Your task to perform on an android device: turn notification dots off Image 0: 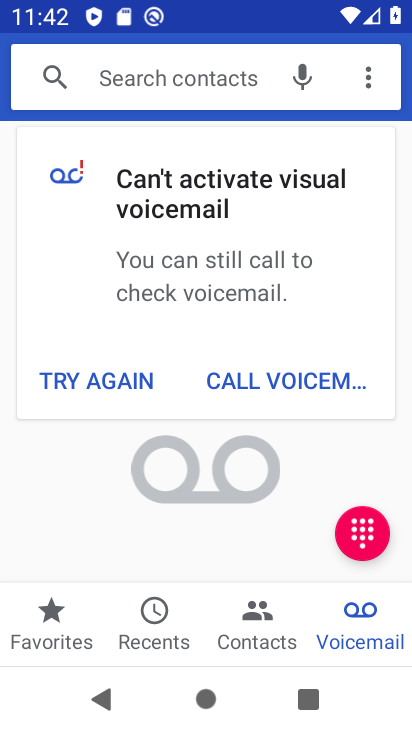
Step 0: press home button
Your task to perform on an android device: turn notification dots off Image 1: 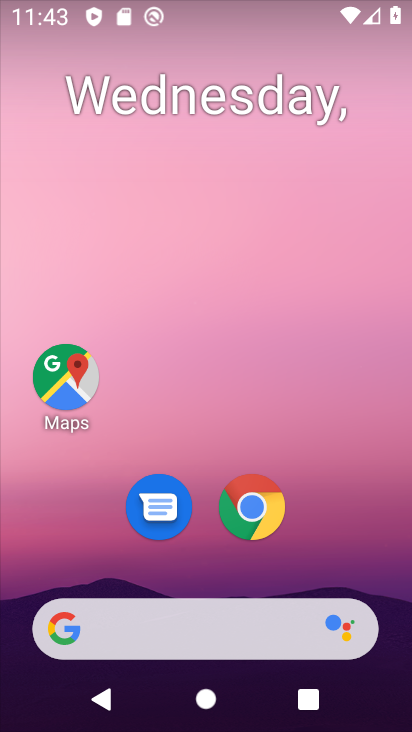
Step 1: drag from (196, 566) to (139, 242)
Your task to perform on an android device: turn notification dots off Image 2: 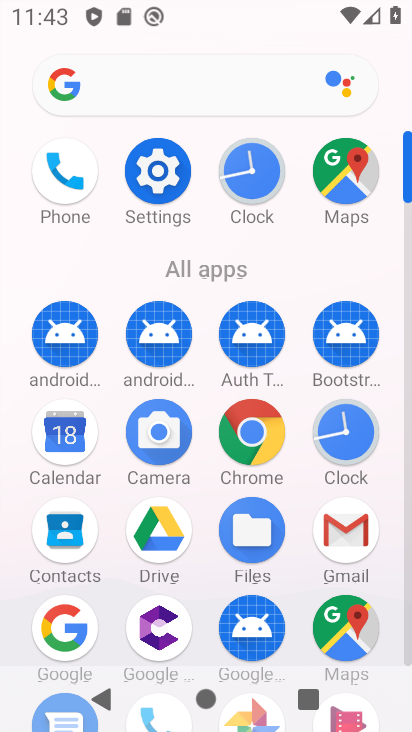
Step 2: click (146, 170)
Your task to perform on an android device: turn notification dots off Image 3: 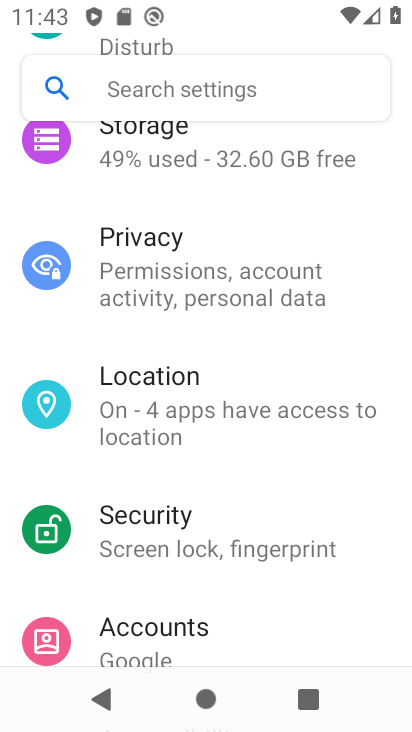
Step 3: drag from (208, 588) to (80, 187)
Your task to perform on an android device: turn notification dots off Image 4: 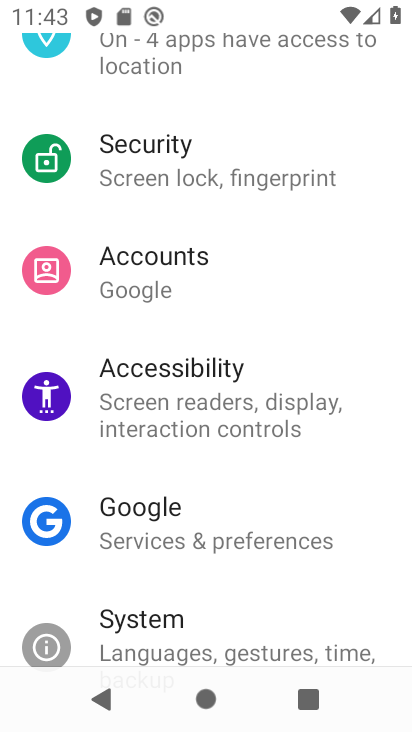
Step 4: drag from (172, 228) to (279, 731)
Your task to perform on an android device: turn notification dots off Image 5: 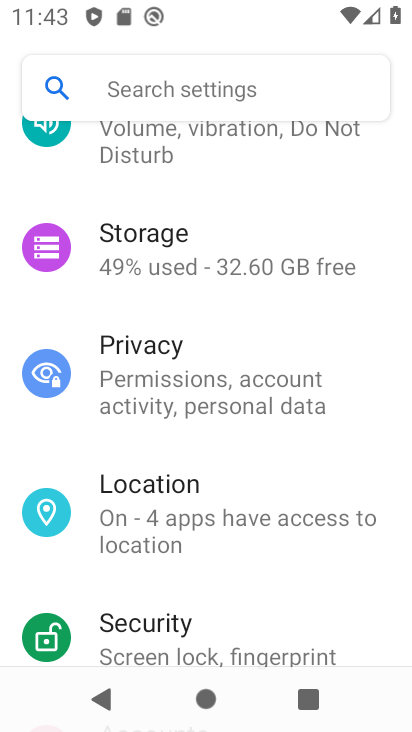
Step 5: drag from (139, 317) to (259, 729)
Your task to perform on an android device: turn notification dots off Image 6: 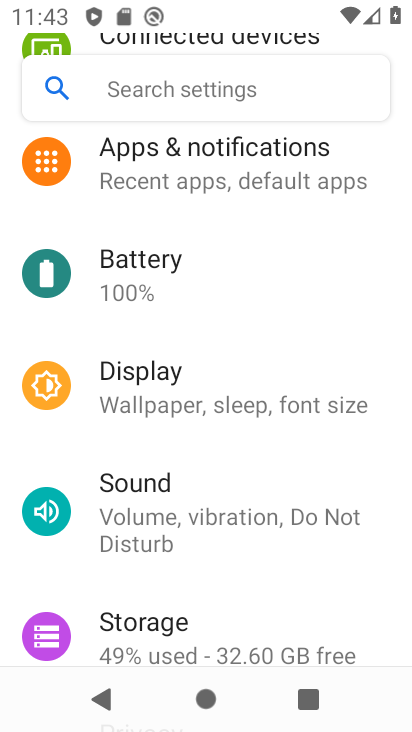
Step 6: click (156, 178)
Your task to perform on an android device: turn notification dots off Image 7: 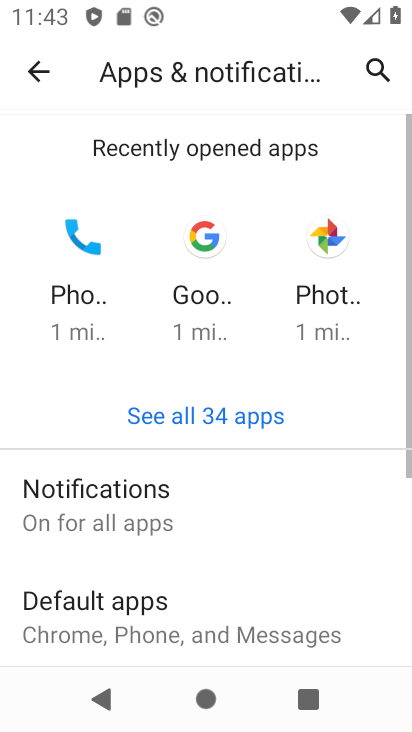
Step 7: drag from (225, 619) to (180, 459)
Your task to perform on an android device: turn notification dots off Image 8: 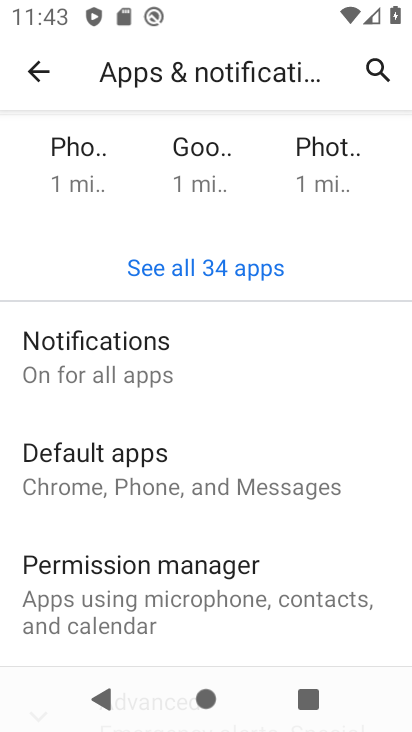
Step 8: click (73, 378)
Your task to perform on an android device: turn notification dots off Image 9: 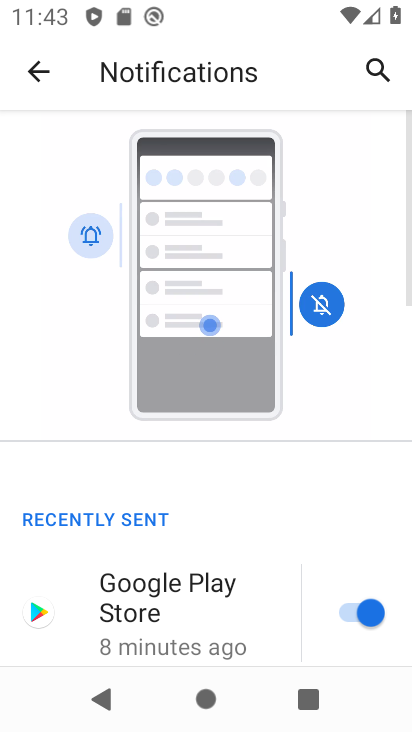
Step 9: drag from (191, 620) to (113, 238)
Your task to perform on an android device: turn notification dots off Image 10: 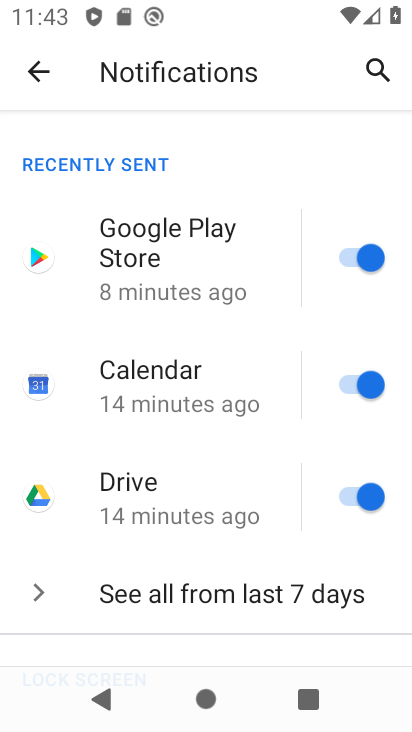
Step 10: drag from (79, 203) to (30, 103)
Your task to perform on an android device: turn notification dots off Image 11: 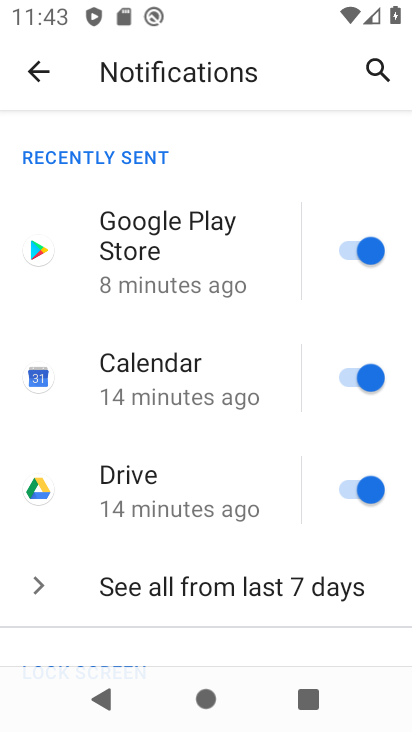
Step 11: drag from (131, 564) to (143, 104)
Your task to perform on an android device: turn notification dots off Image 12: 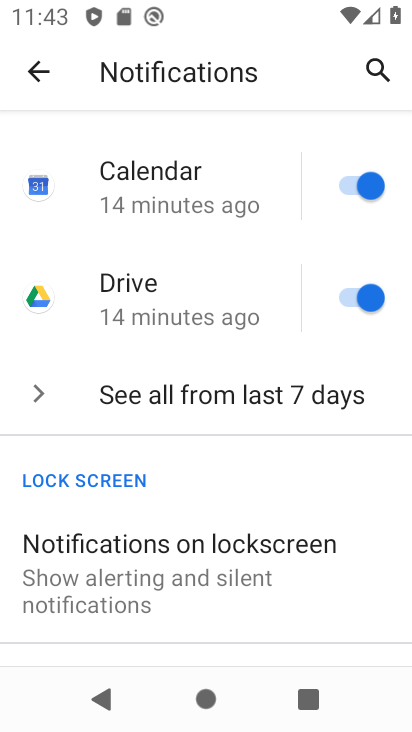
Step 12: drag from (112, 529) to (72, 241)
Your task to perform on an android device: turn notification dots off Image 13: 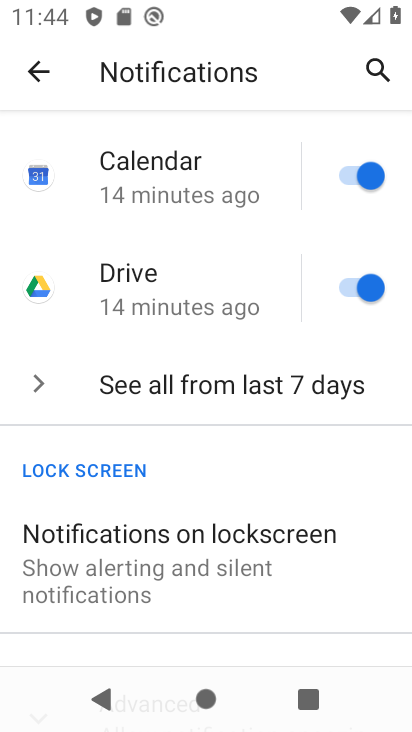
Step 13: drag from (168, 603) to (108, 278)
Your task to perform on an android device: turn notification dots off Image 14: 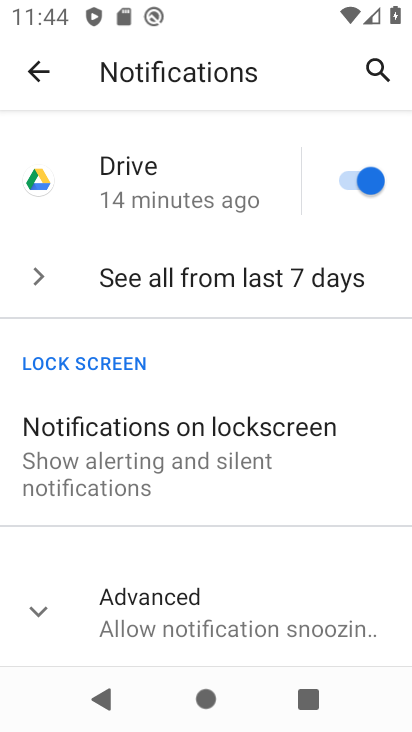
Step 14: click (169, 620)
Your task to perform on an android device: turn notification dots off Image 15: 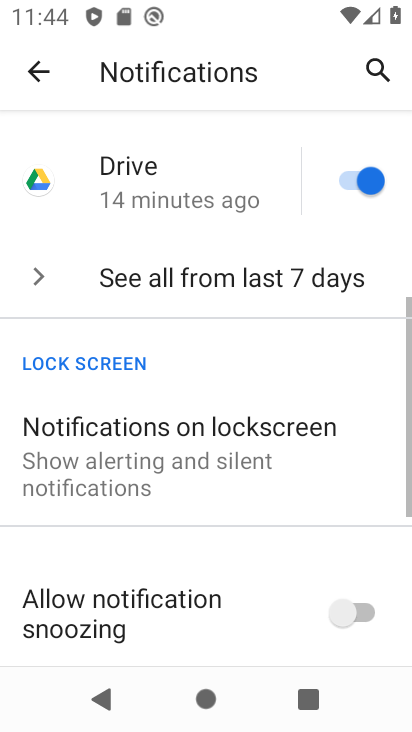
Step 15: drag from (152, 633) to (207, 179)
Your task to perform on an android device: turn notification dots off Image 16: 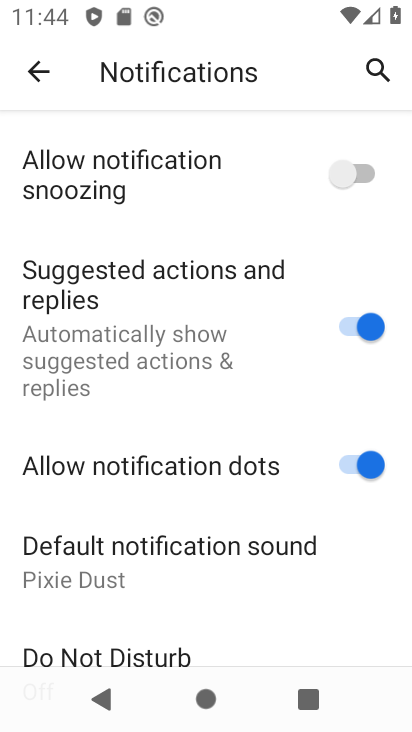
Step 16: click (354, 477)
Your task to perform on an android device: turn notification dots off Image 17: 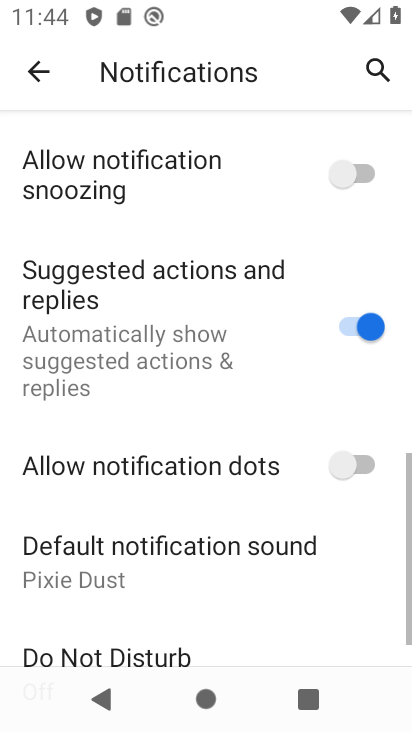
Step 17: click (347, 465)
Your task to perform on an android device: turn notification dots off Image 18: 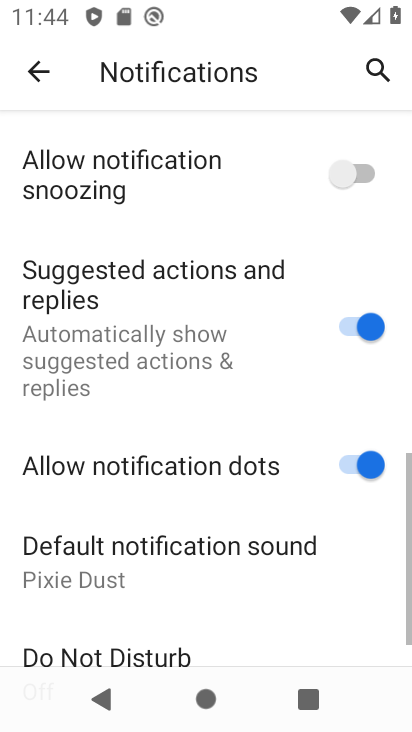
Step 18: task complete